Your task to perform on an android device: Search for good Japanese restaurants Image 0: 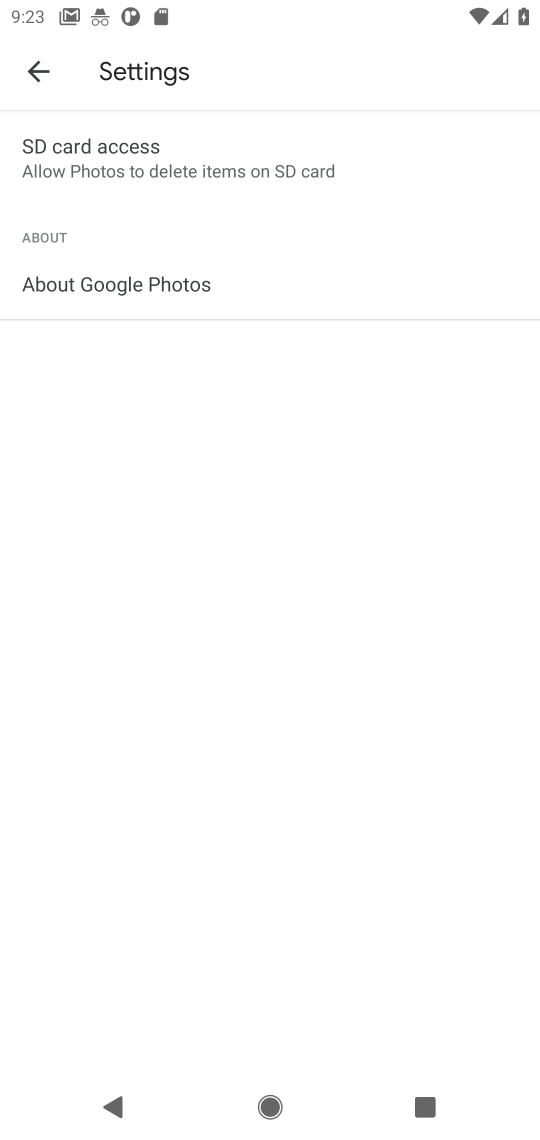
Step 0: press home button
Your task to perform on an android device: Search for good Japanese restaurants Image 1: 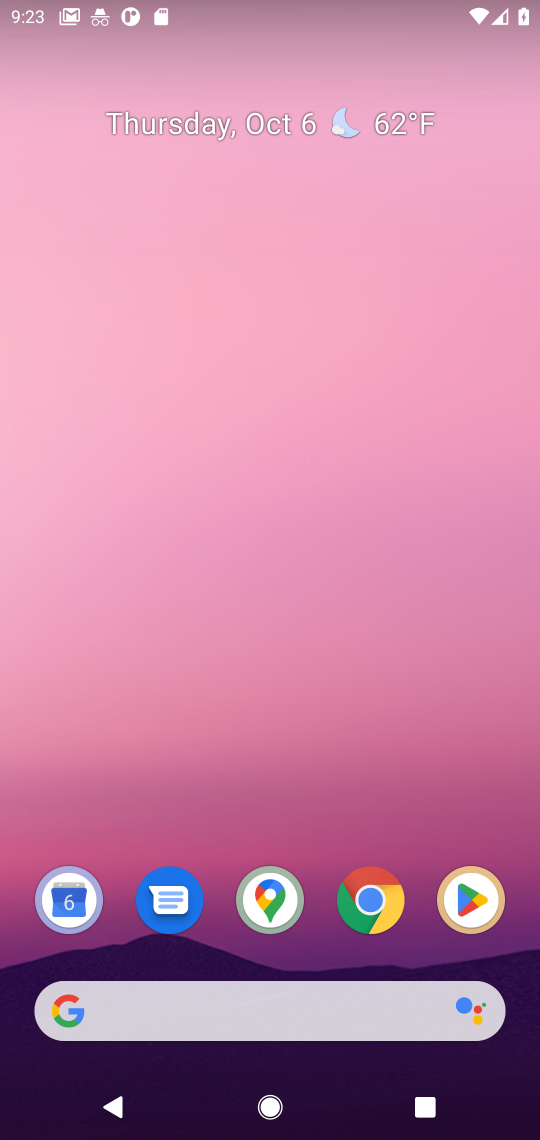
Step 1: click (247, 1017)
Your task to perform on an android device: Search for good Japanese restaurants Image 2: 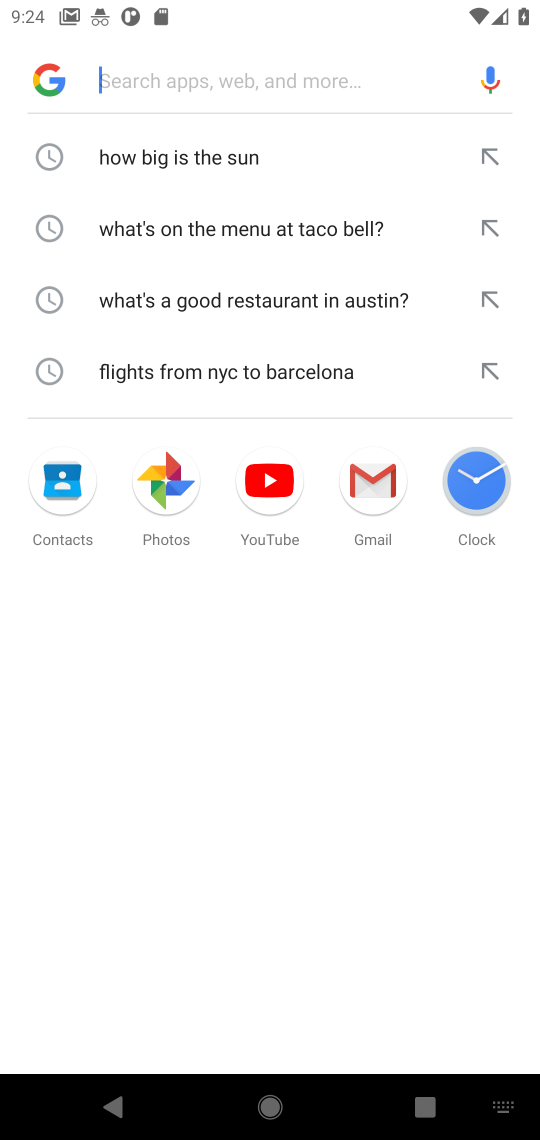
Step 2: type "good Japanese restaurants"
Your task to perform on an android device: Search for good Japanese restaurants Image 3: 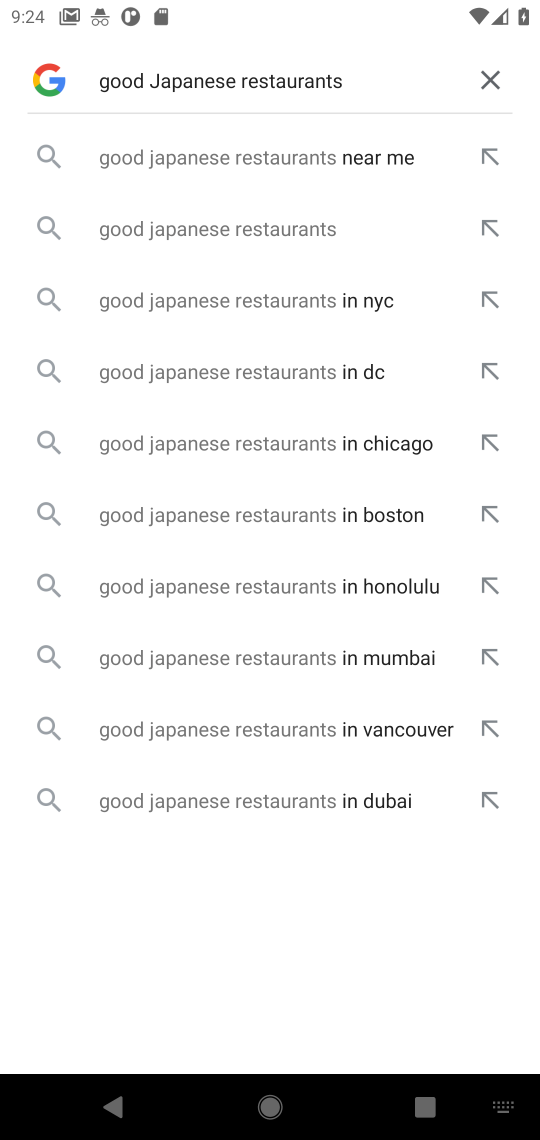
Step 3: press enter
Your task to perform on an android device: Search for good Japanese restaurants Image 4: 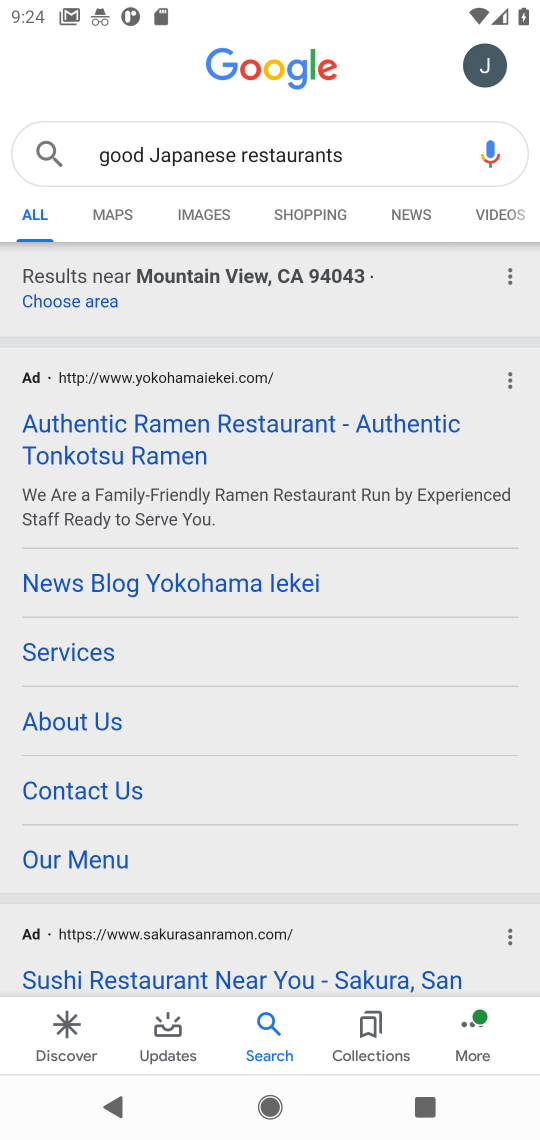
Step 4: drag from (441, 763) to (419, 434)
Your task to perform on an android device: Search for good Japanese restaurants Image 5: 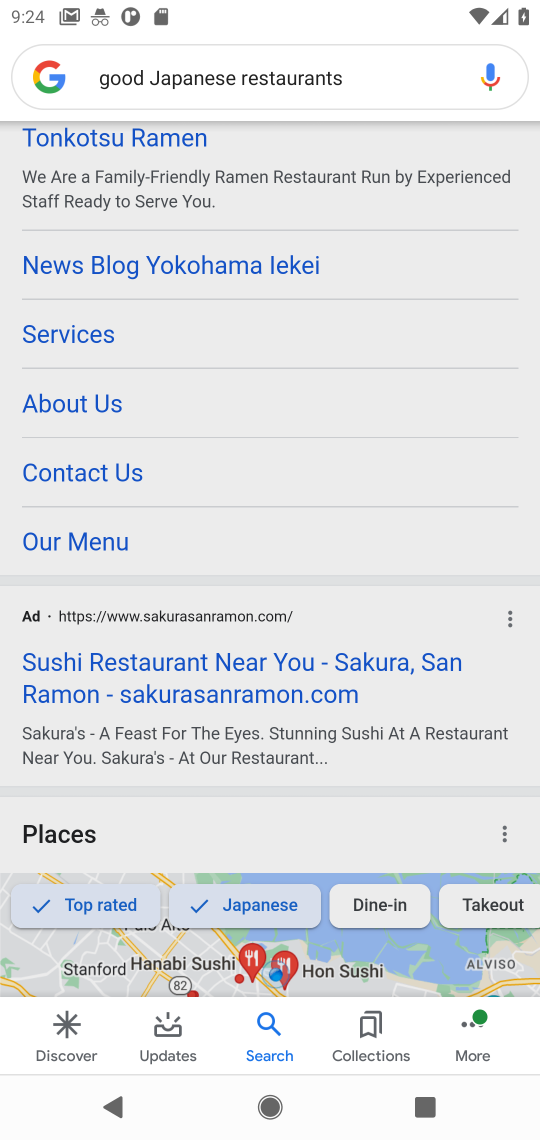
Step 5: drag from (347, 869) to (364, 489)
Your task to perform on an android device: Search for good Japanese restaurants Image 6: 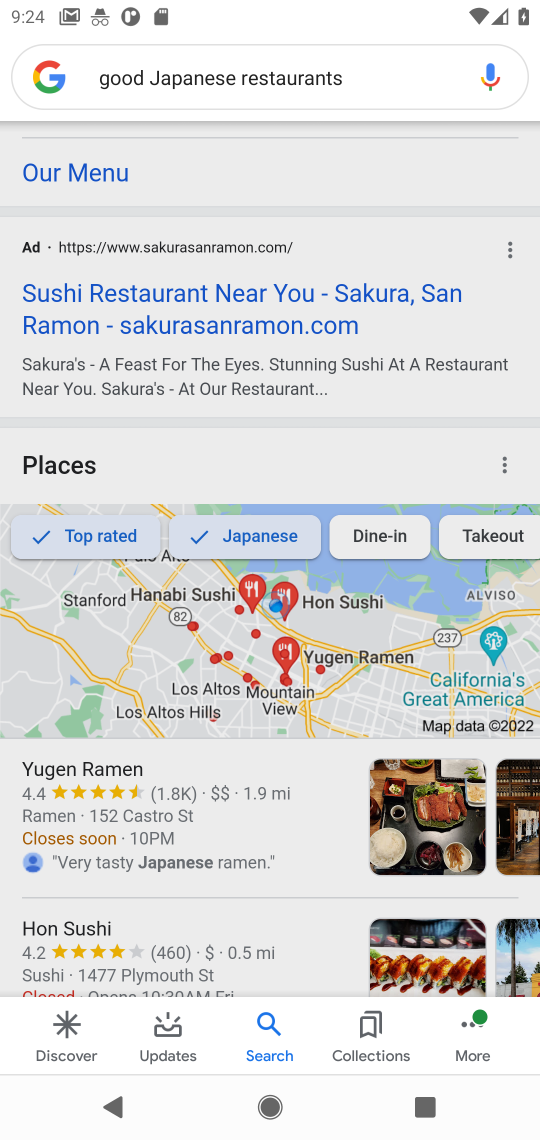
Step 6: drag from (240, 880) to (275, 501)
Your task to perform on an android device: Search for good Japanese restaurants Image 7: 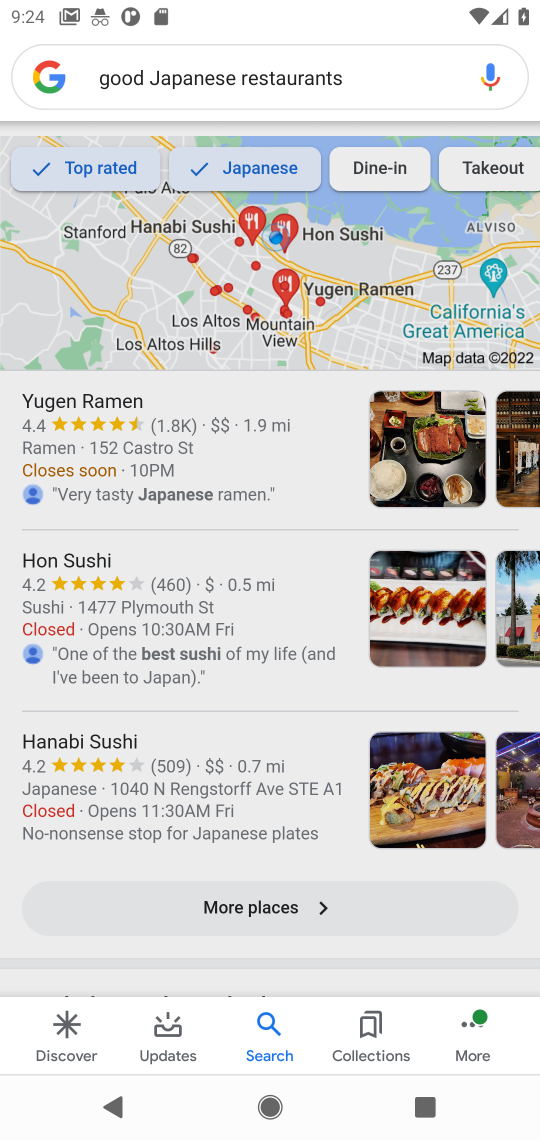
Step 7: click (303, 907)
Your task to perform on an android device: Search for good Japanese restaurants Image 8: 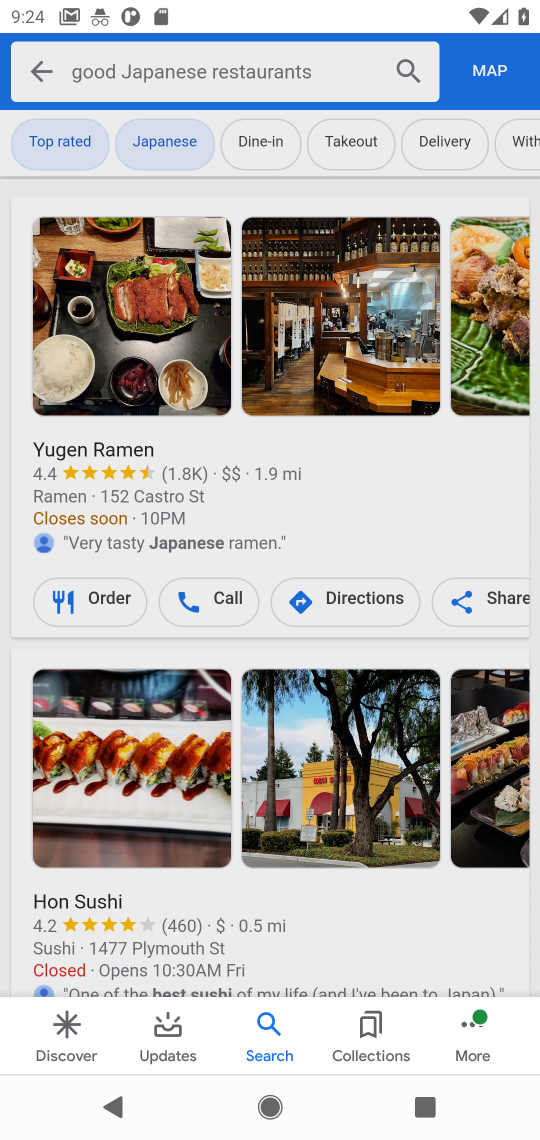
Step 8: task complete